Your task to perform on an android device: Search for sushi restaurants on Maps Image 0: 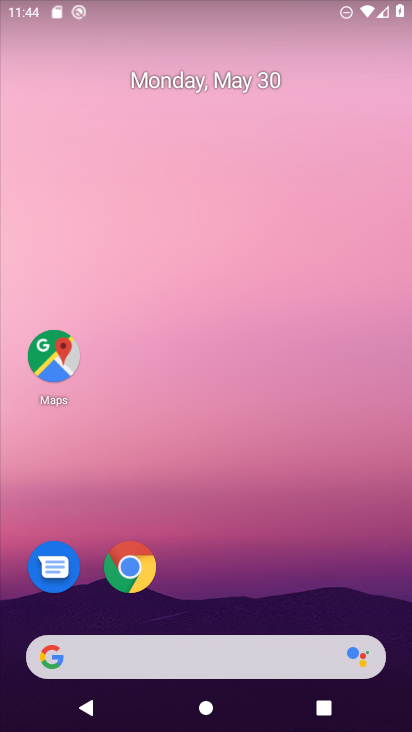
Step 0: drag from (290, 557) to (151, 40)
Your task to perform on an android device: Search for sushi restaurants on Maps Image 1: 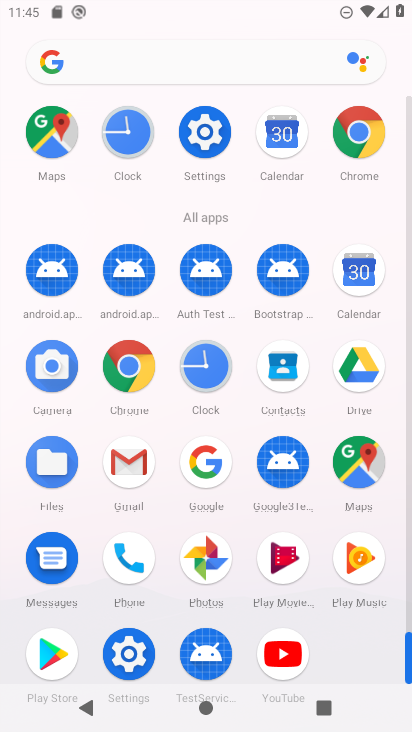
Step 1: drag from (9, 528) to (4, 205)
Your task to perform on an android device: Search for sushi restaurants on Maps Image 2: 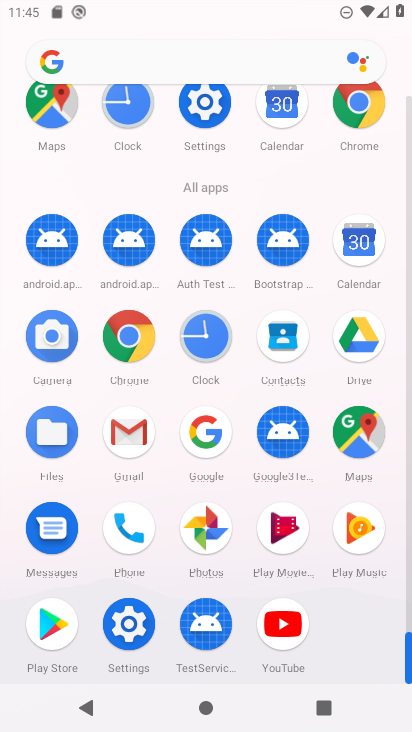
Step 2: click (355, 429)
Your task to perform on an android device: Search for sushi restaurants on Maps Image 3: 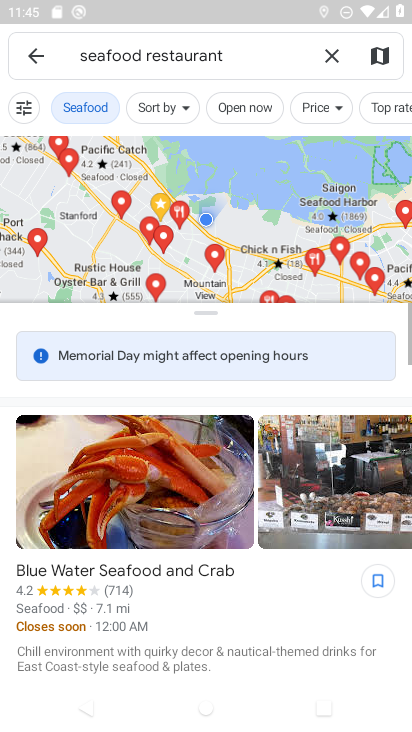
Step 3: click (329, 45)
Your task to perform on an android device: Search for sushi restaurants on Maps Image 4: 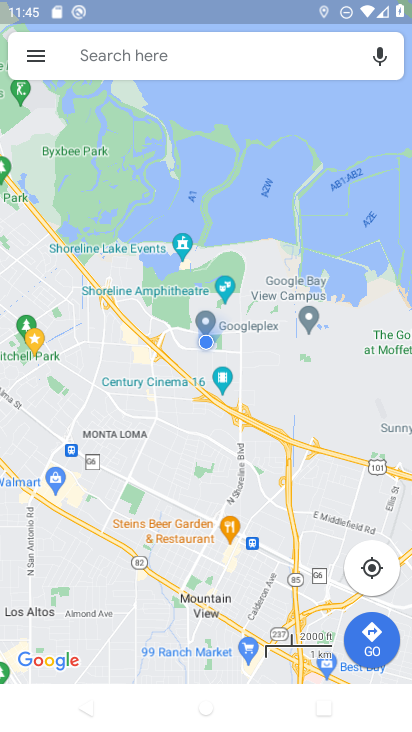
Step 4: click (229, 59)
Your task to perform on an android device: Search for sushi restaurants on Maps Image 5: 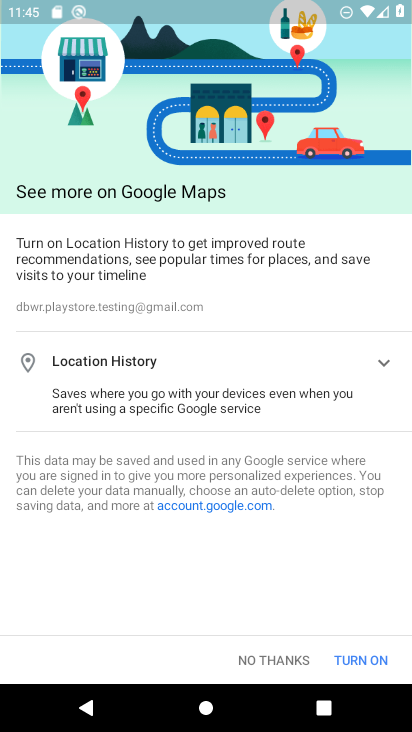
Step 5: click (361, 658)
Your task to perform on an android device: Search for sushi restaurants on Maps Image 6: 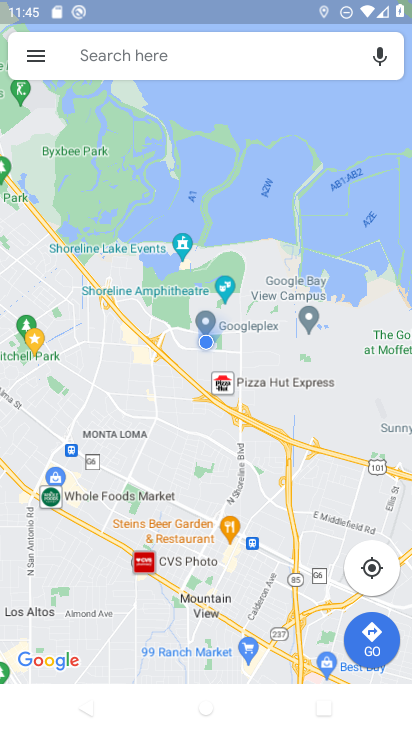
Step 6: click (230, 40)
Your task to perform on an android device: Search for sushi restaurants on Maps Image 7: 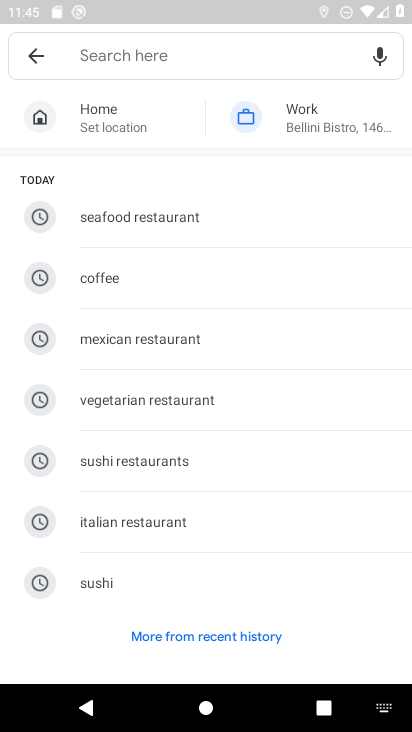
Step 7: click (139, 461)
Your task to perform on an android device: Search for sushi restaurants on Maps Image 8: 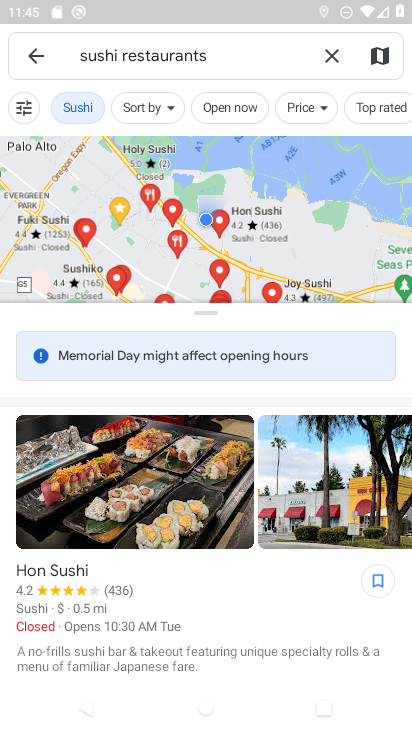
Step 8: task complete